Your task to perform on an android device: Open Maps and search for coffee Image 0: 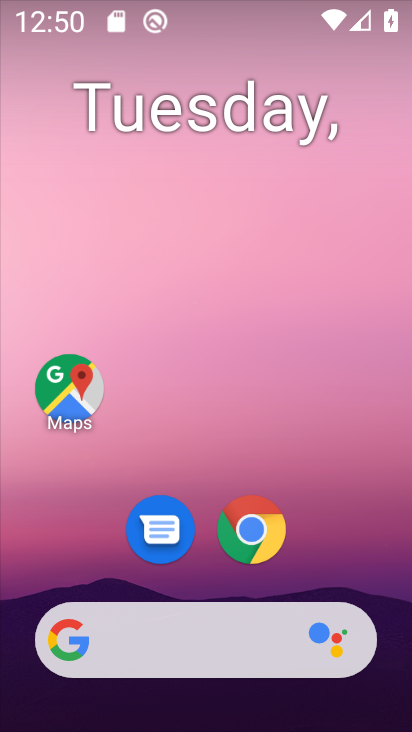
Step 0: click (75, 400)
Your task to perform on an android device: Open Maps and search for coffee Image 1: 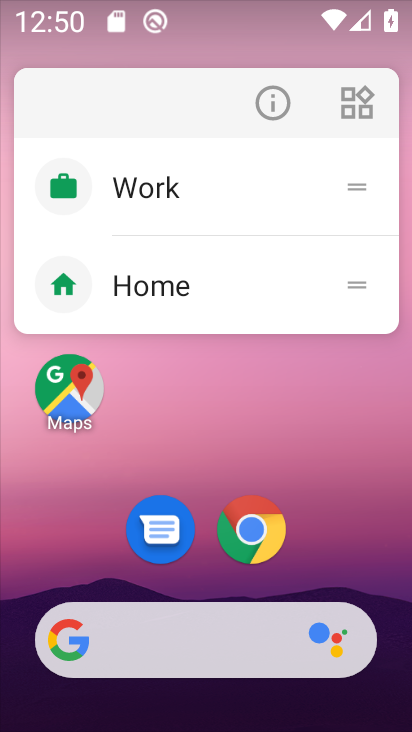
Step 1: click (68, 395)
Your task to perform on an android device: Open Maps and search for coffee Image 2: 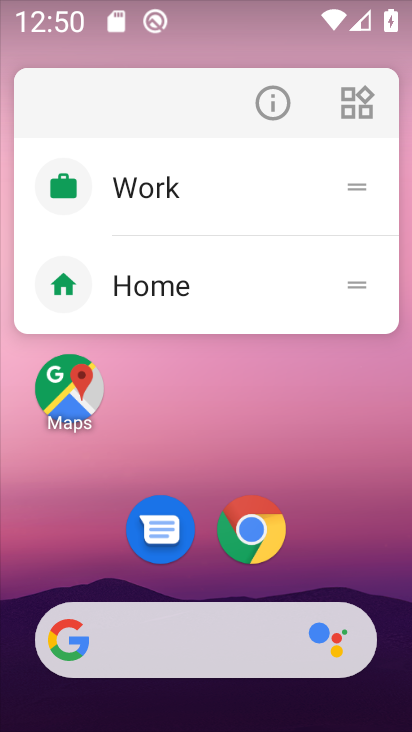
Step 2: click (68, 396)
Your task to perform on an android device: Open Maps and search for coffee Image 3: 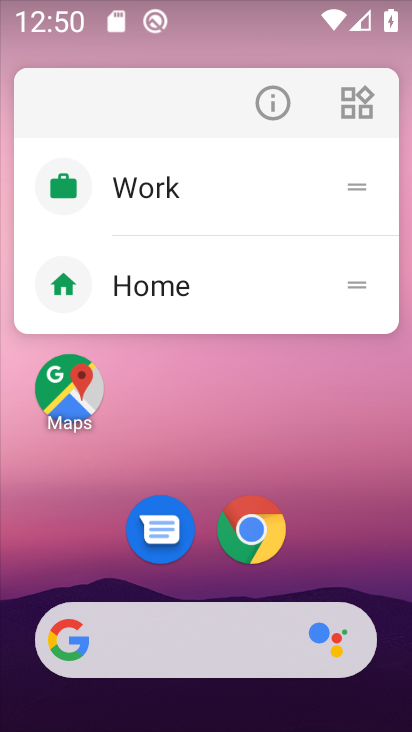
Step 3: click (68, 396)
Your task to perform on an android device: Open Maps and search for coffee Image 4: 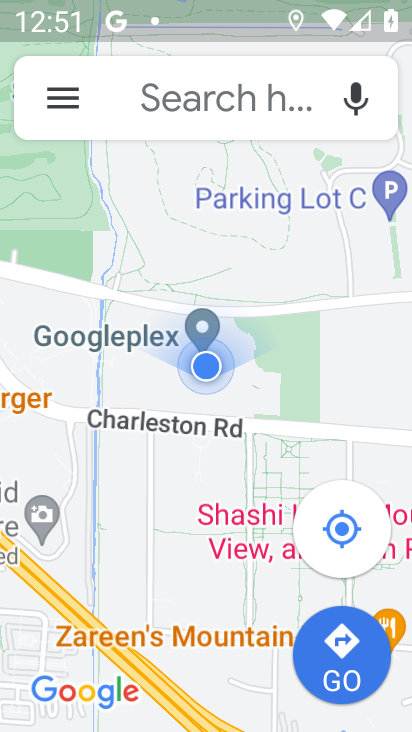
Step 4: click (189, 105)
Your task to perform on an android device: Open Maps and search for coffee Image 5: 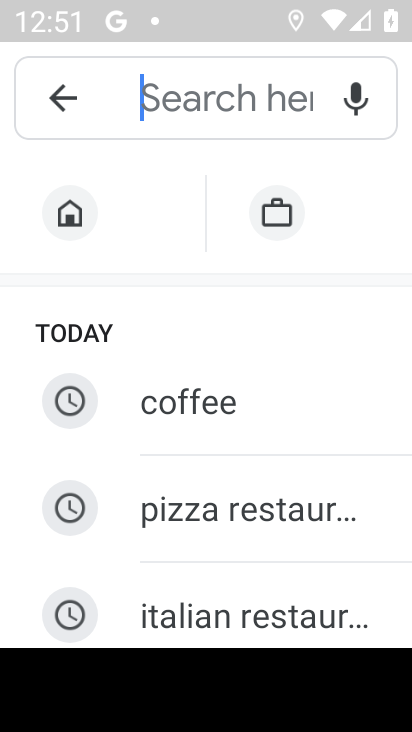
Step 5: type "coffee"
Your task to perform on an android device: Open Maps and search for coffee Image 6: 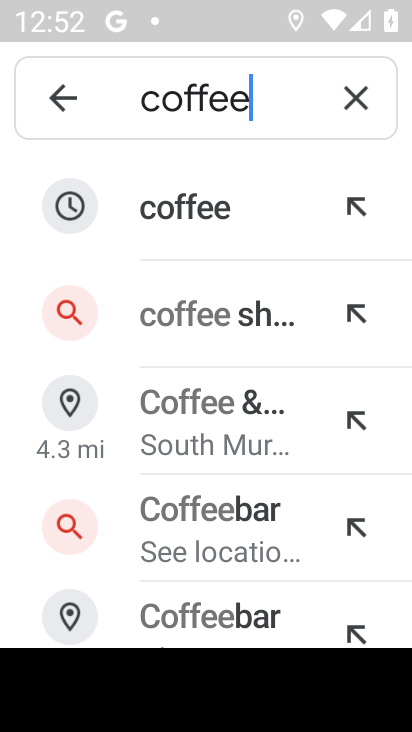
Step 6: click (197, 204)
Your task to perform on an android device: Open Maps and search for coffee Image 7: 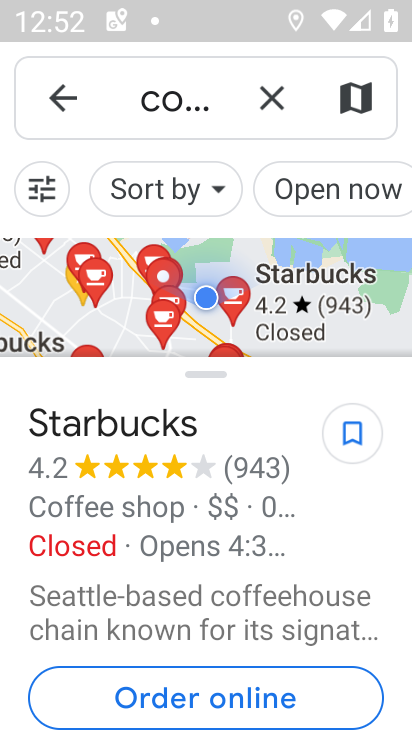
Step 7: task complete